Your task to perform on an android device: Search for the best rated vacuums on Target Image 0: 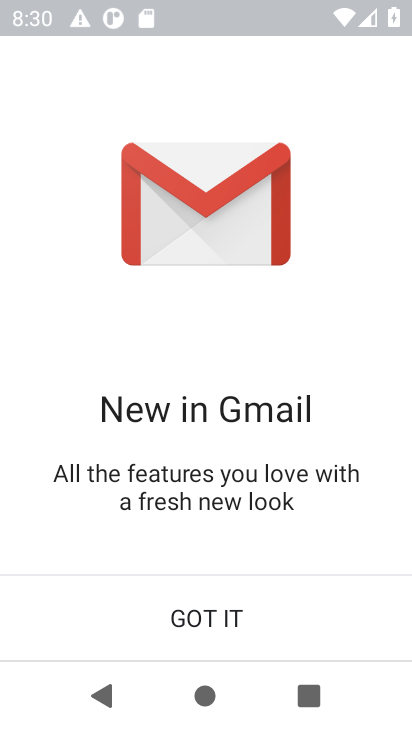
Step 0: click (209, 620)
Your task to perform on an android device: Search for the best rated vacuums on Target Image 1: 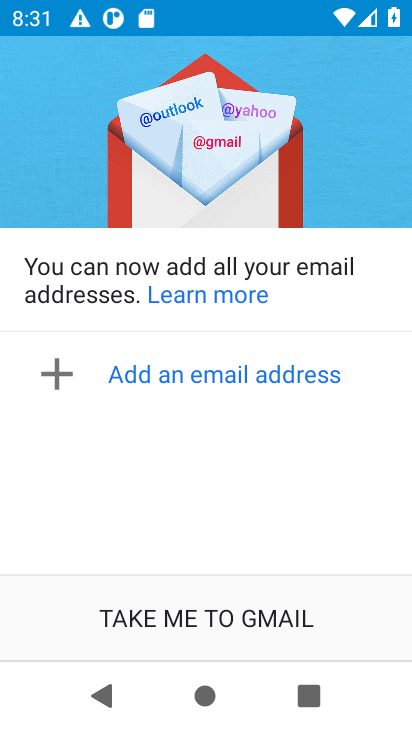
Step 1: click (209, 620)
Your task to perform on an android device: Search for the best rated vacuums on Target Image 2: 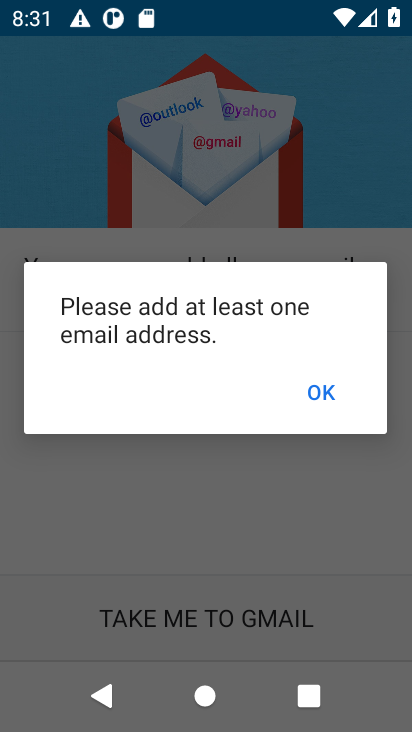
Step 2: click (319, 385)
Your task to perform on an android device: Search for the best rated vacuums on Target Image 3: 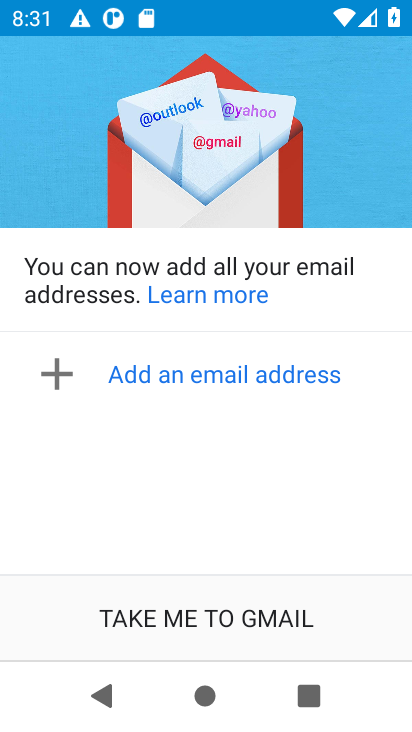
Step 3: task complete